Your task to perform on an android device: Open Maps and search for coffee Image 0: 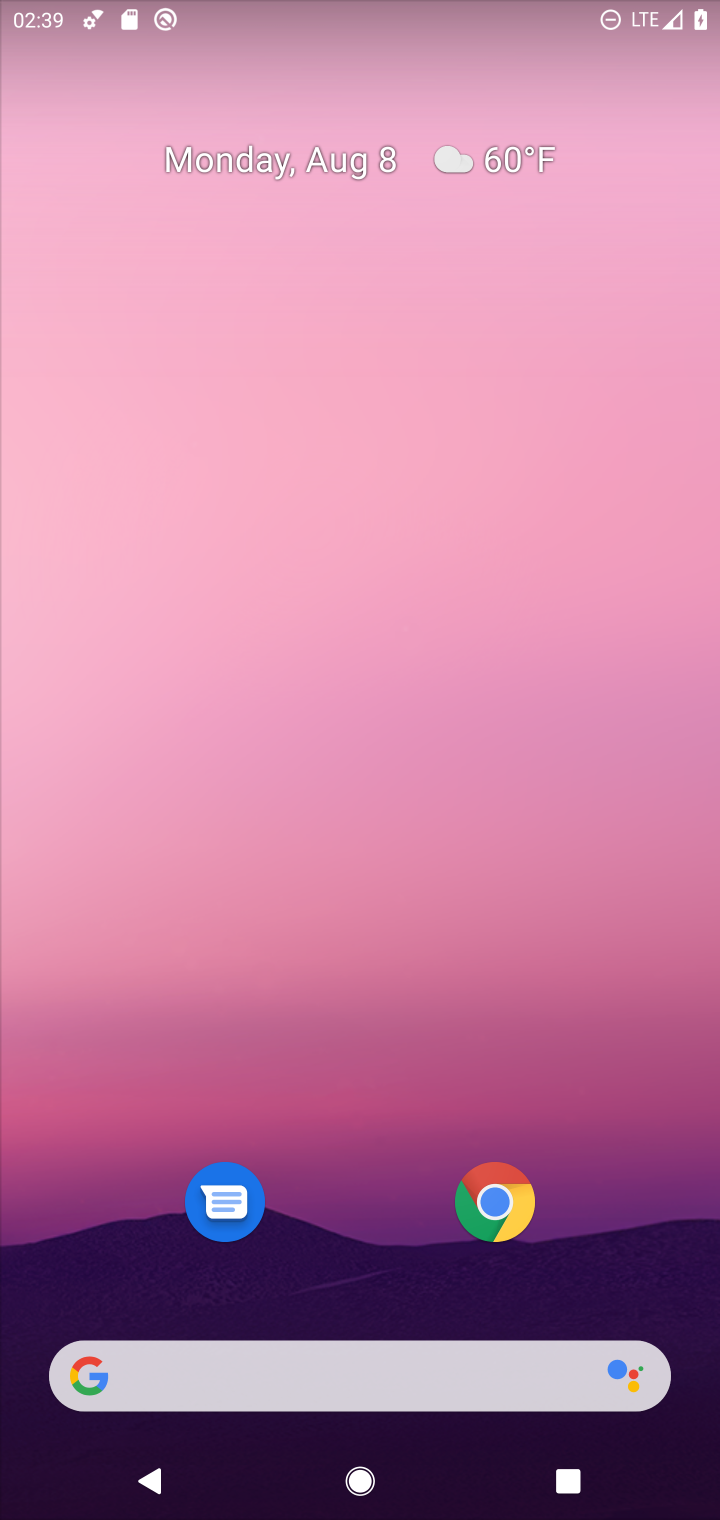
Step 0: press home button
Your task to perform on an android device: Open Maps and search for coffee Image 1: 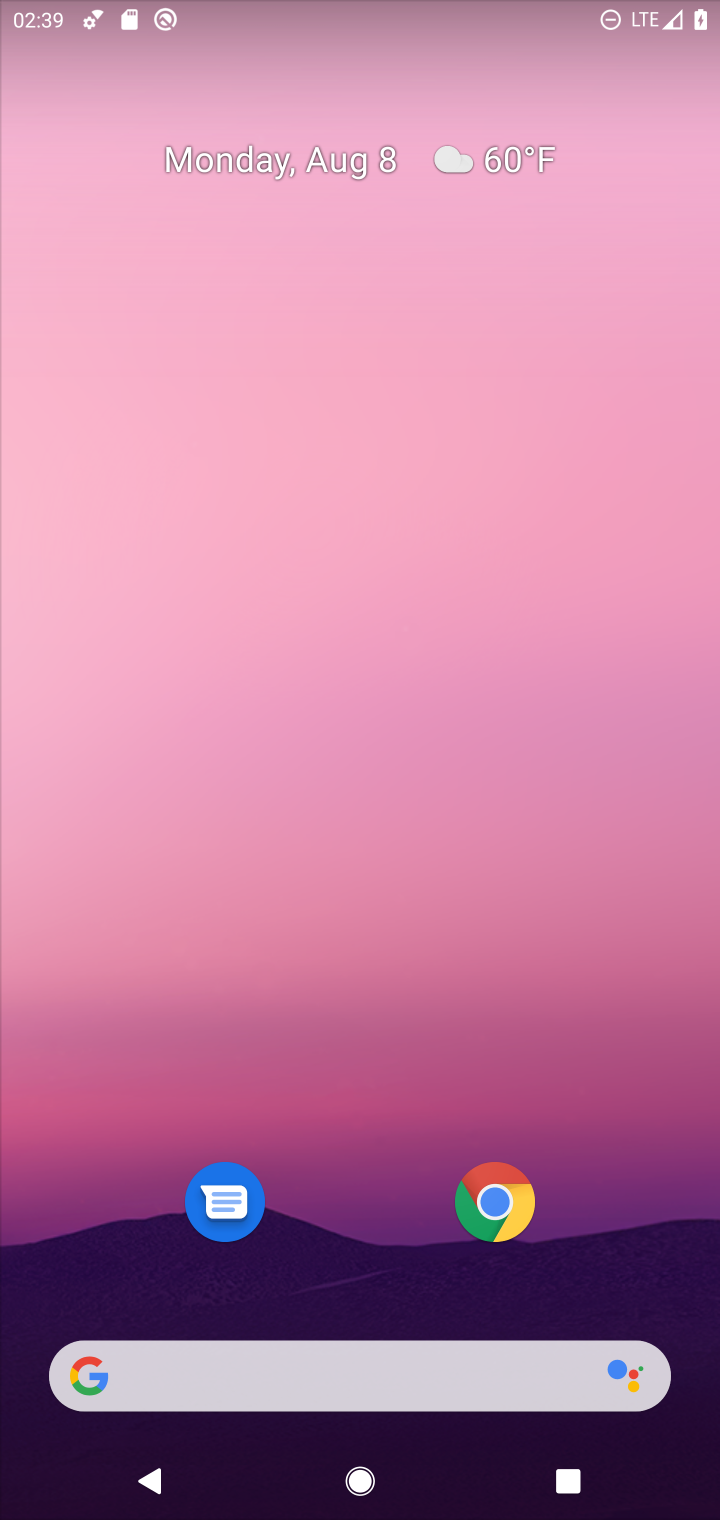
Step 1: drag from (370, 1281) to (458, 310)
Your task to perform on an android device: Open Maps and search for coffee Image 2: 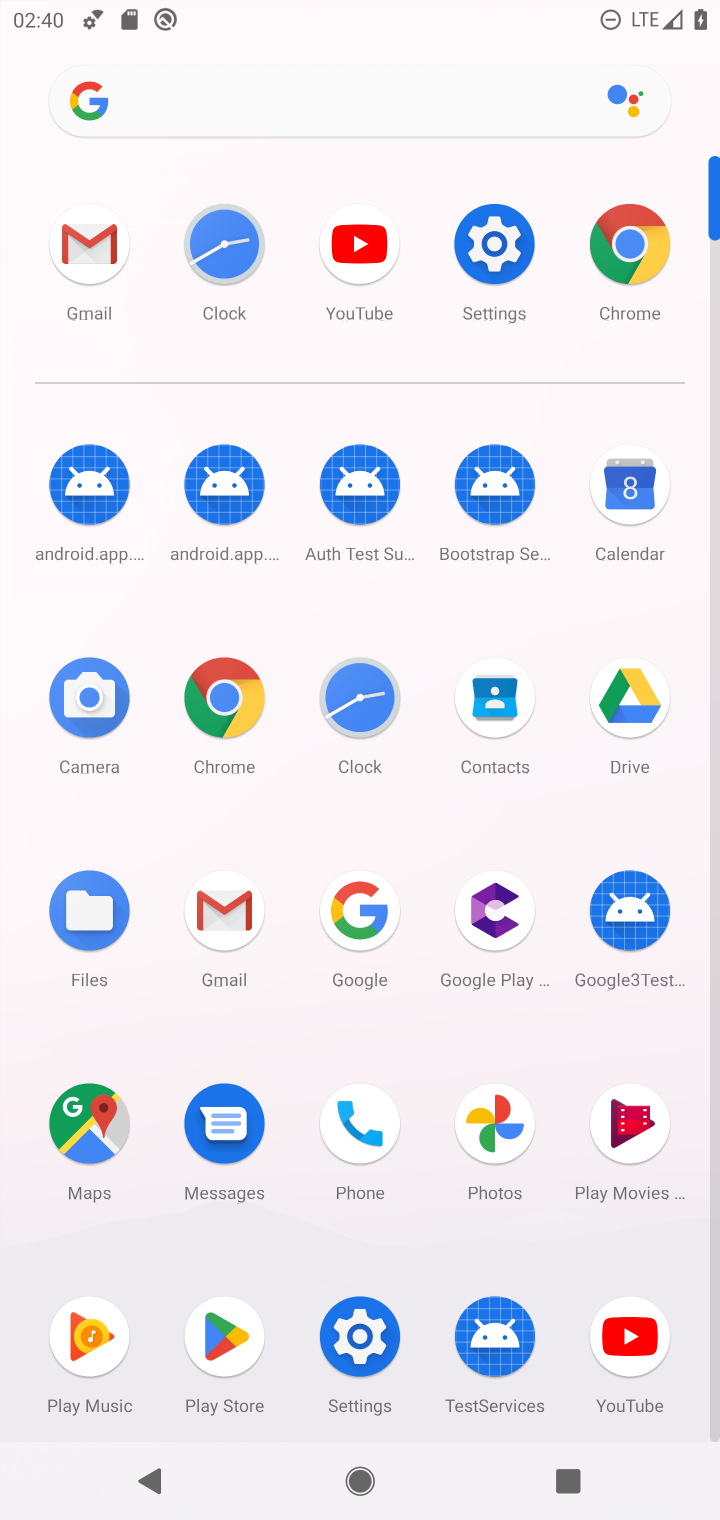
Step 2: click (93, 1126)
Your task to perform on an android device: Open Maps and search for coffee Image 3: 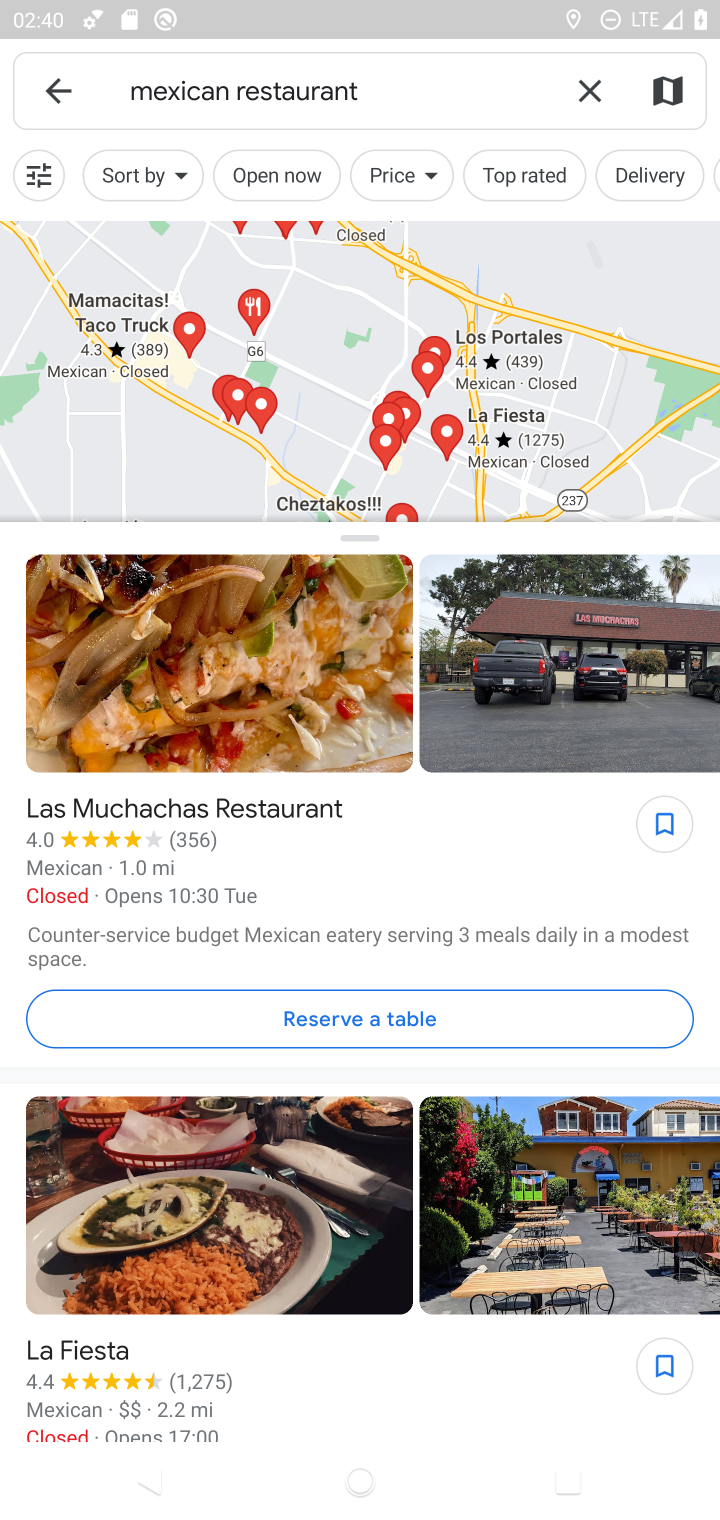
Step 3: click (580, 81)
Your task to perform on an android device: Open Maps and search for coffee Image 4: 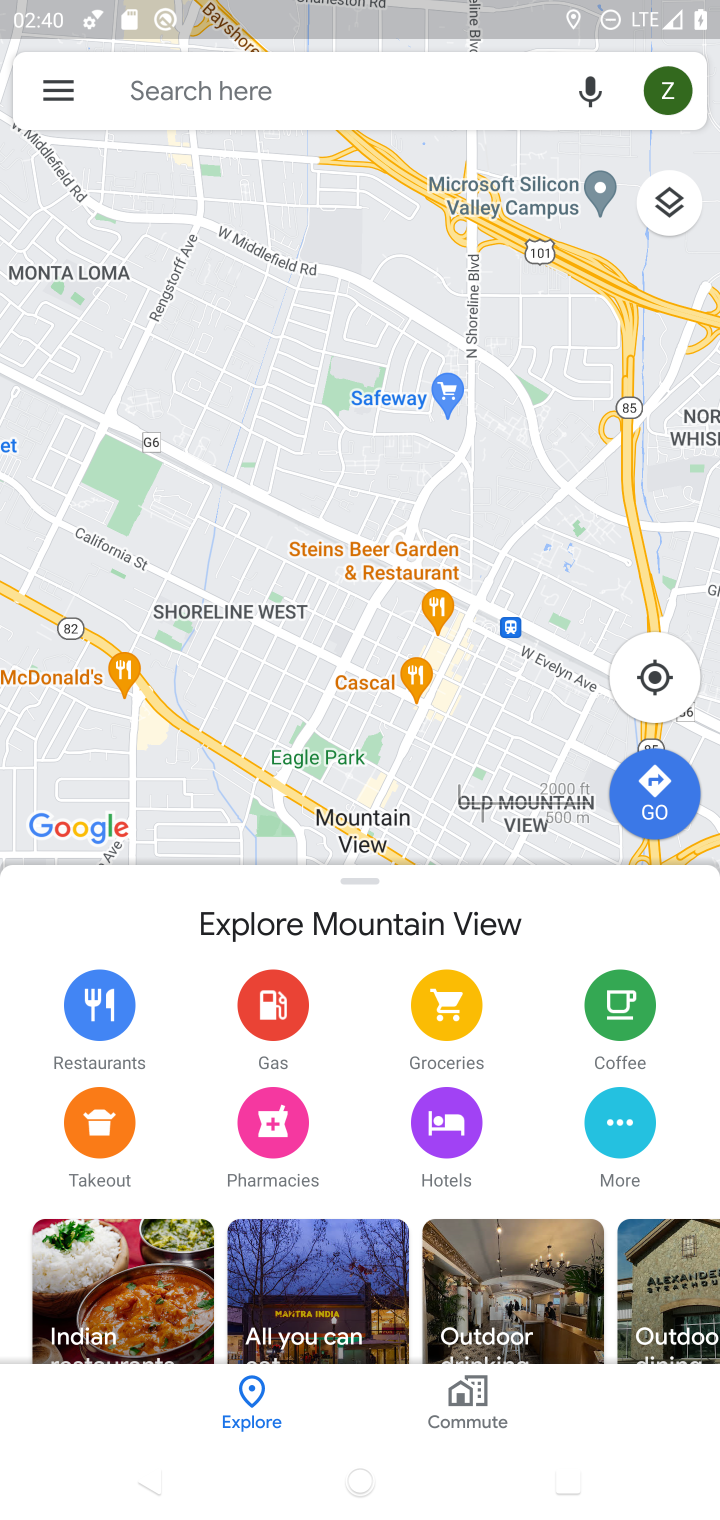
Step 4: click (463, 88)
Your task to perform on an android device: Open Maps and search for coffee Image 5: 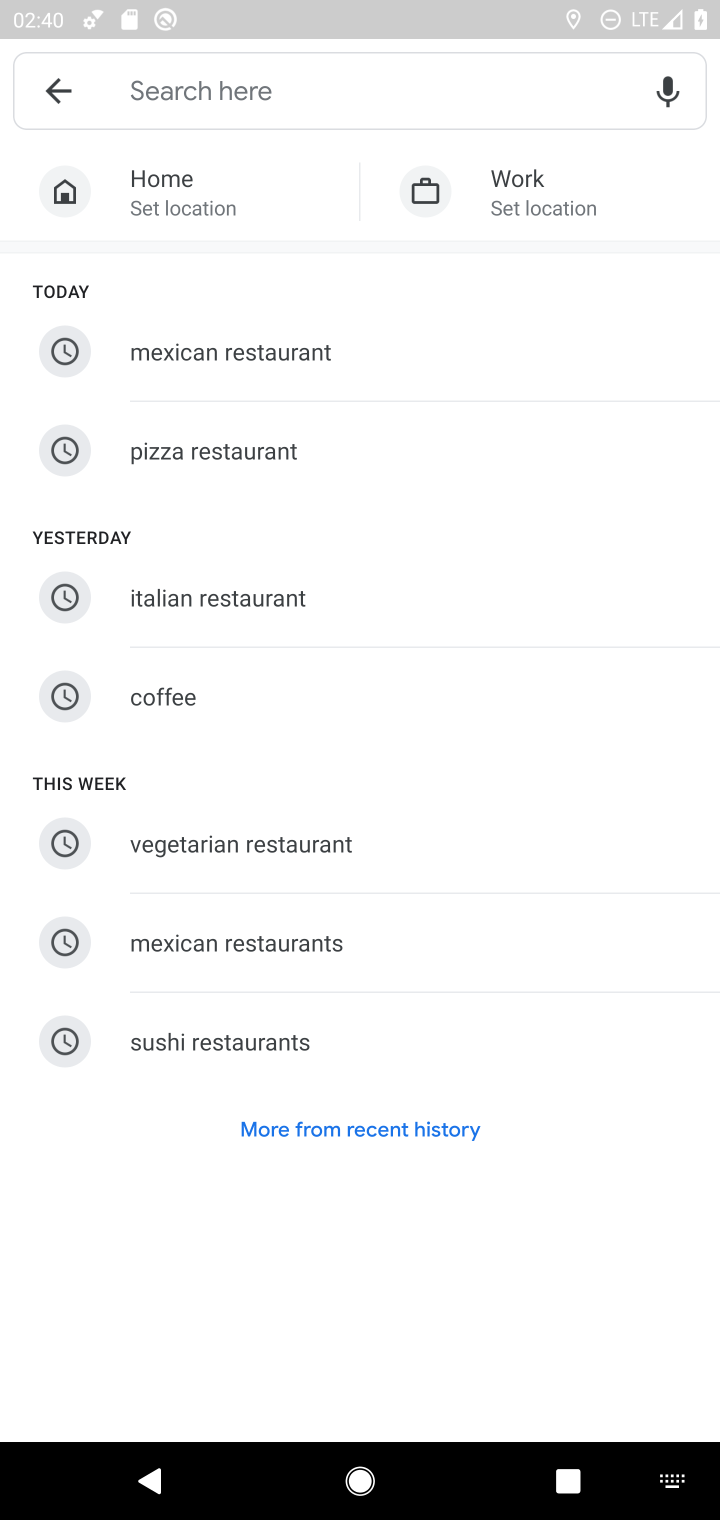
Step 5: type "coffee"
Your task to perform on an android device: Open Maps and search for coffee Image 6: 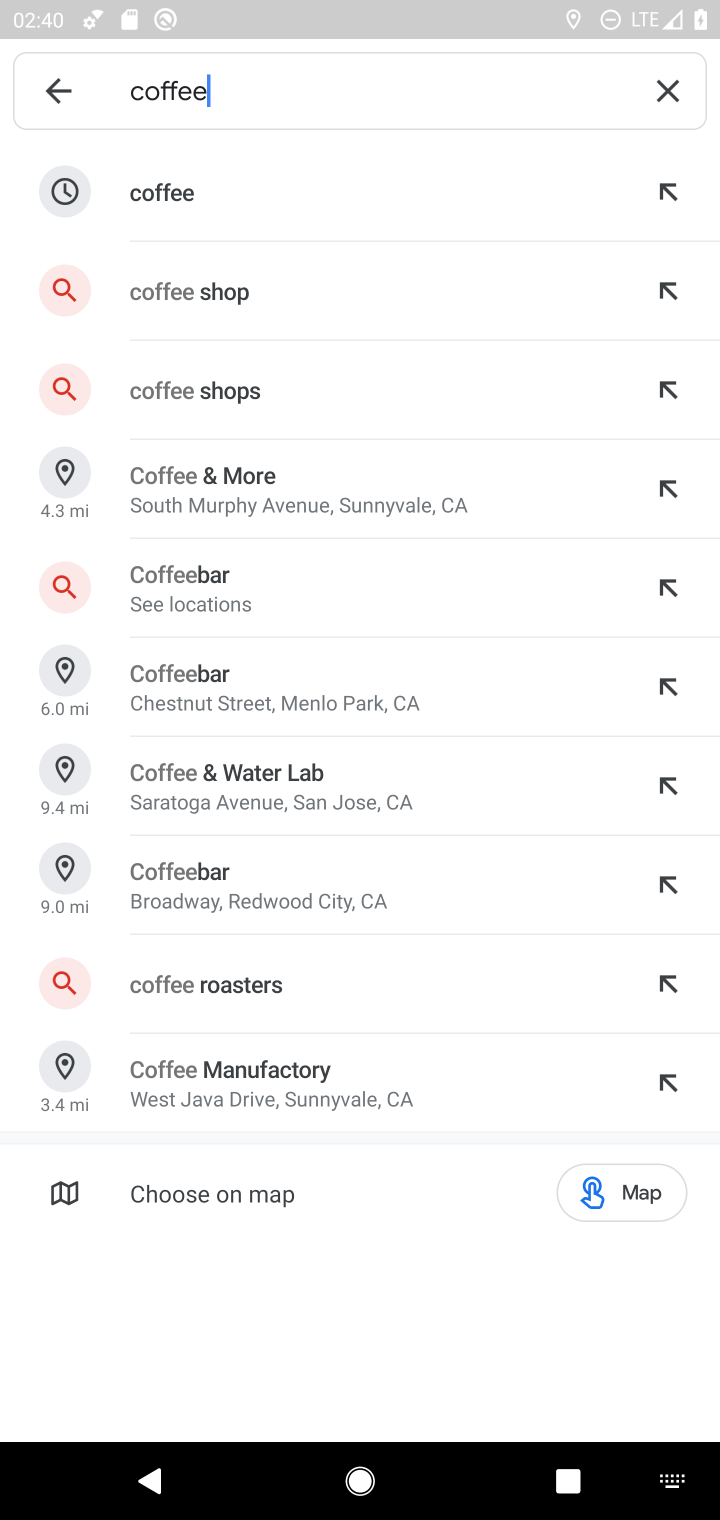
Step 6: click (266, 188)
Your task to perform on an android device: Open Maps and search for coffee Image 7: 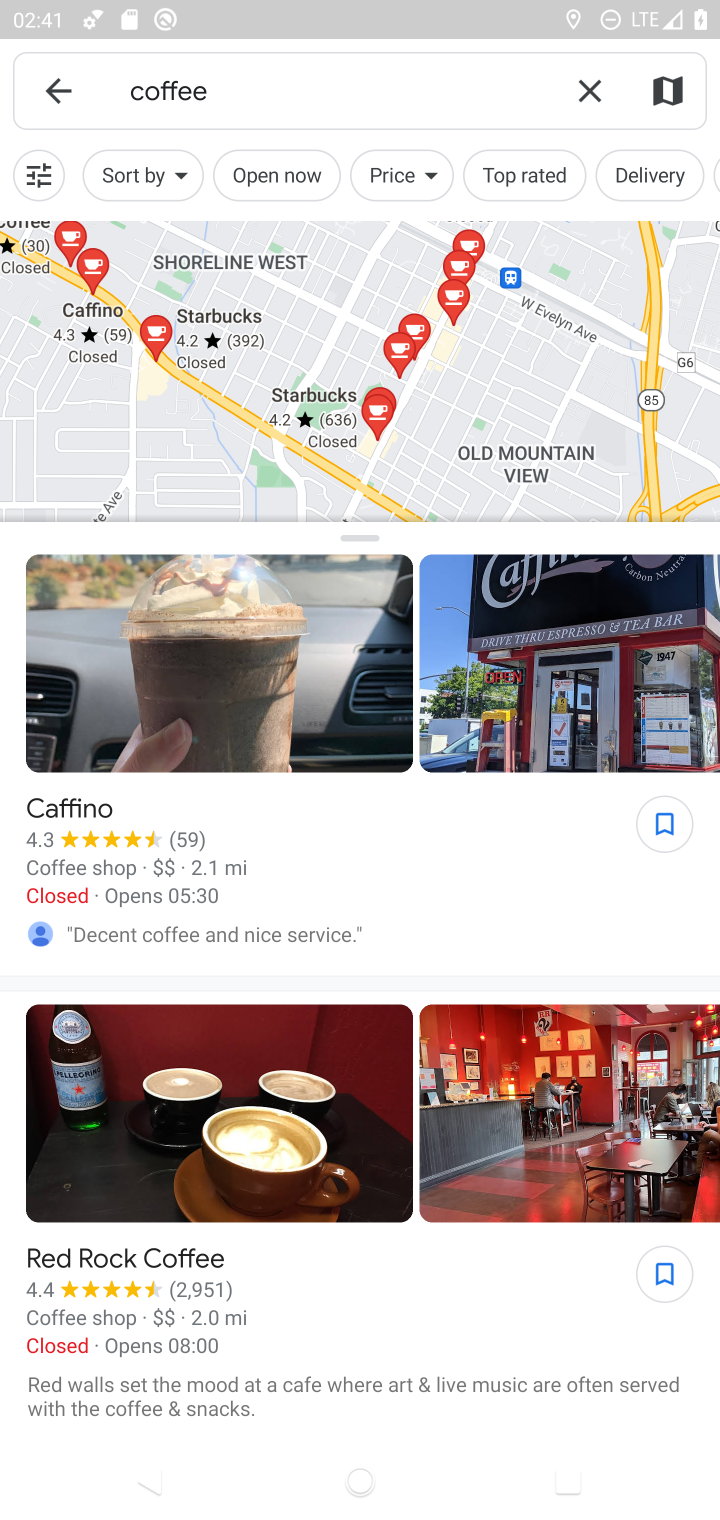
Step 7: task complete